Your task to perform on an android device: Open Youtube and go to "Your channel" Image 0: 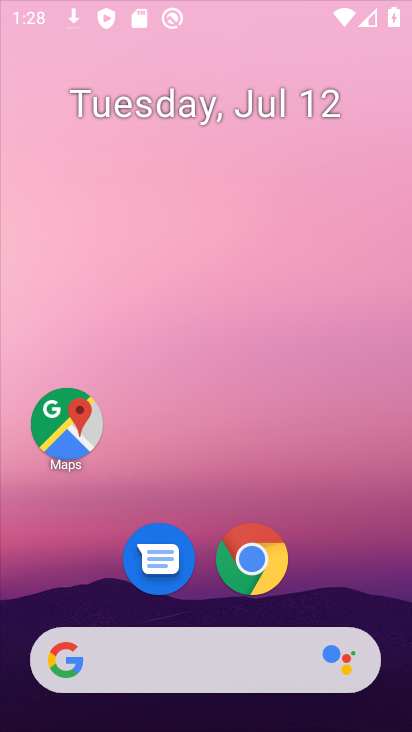
Step 0: press home button
Your task to perform on an android device: Open Youtube and go to "Your channel" Image 1: 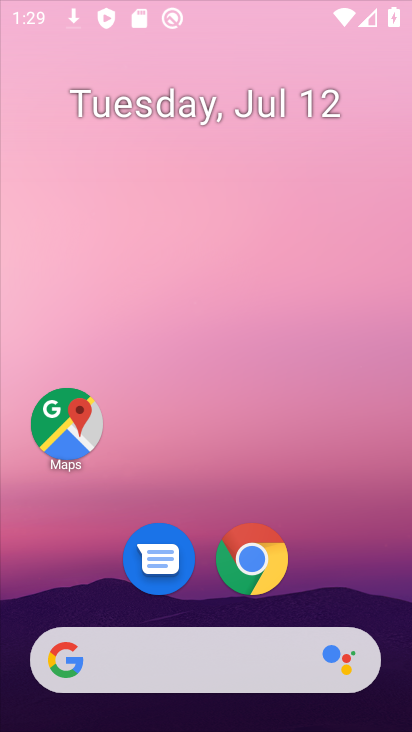
Step 1: drag from (363, 546) to (382, 111)
Your task to perform on an android device: Open Youtube and go to "Your channel" Image 2: 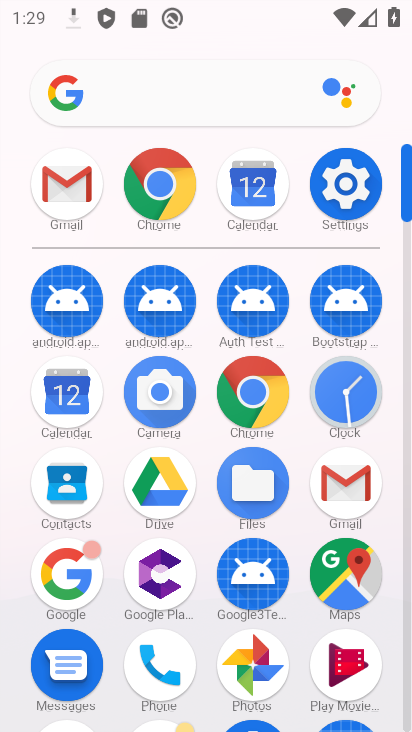
Step 2: drag from (389, 626) to (389, 315)
Your task to perform on an android device: Open Youtube and go to "Your channel" Image 3: 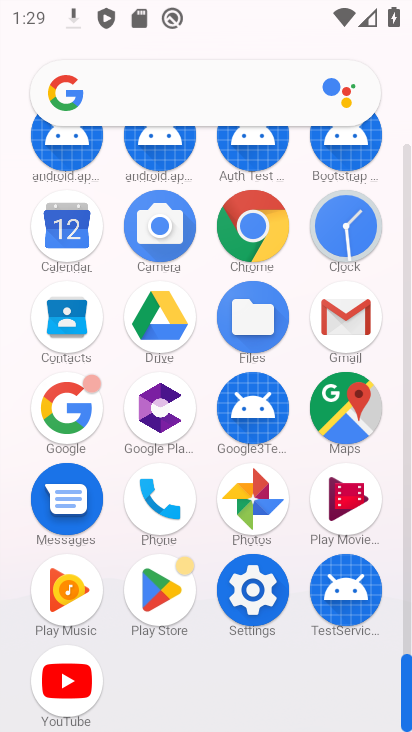
Step 3: click (57, 687)
Your task to perform on an android device: Open Youtube and go to "Your channel" Image 4: 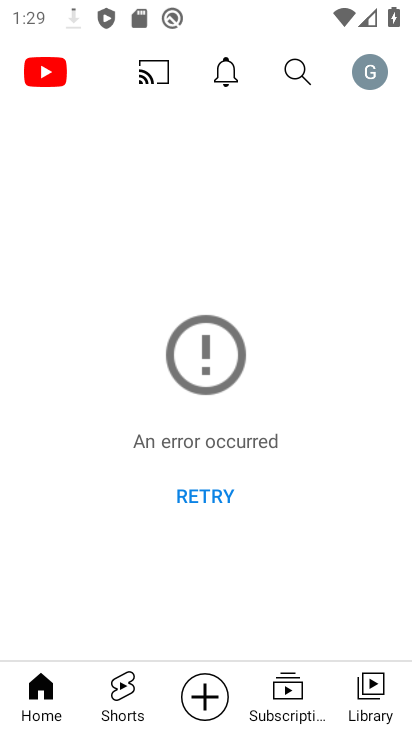
Step 4: click (377, 73)
Your task to perform on an android device: Open Youtube and go to "Your channel" Image 5: 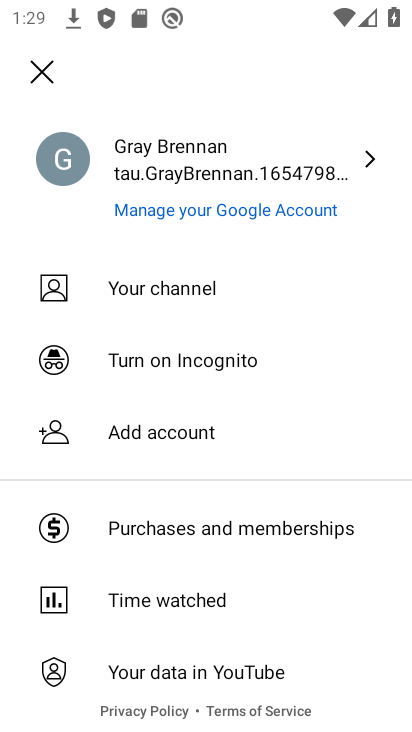
Step 5: click (195, 297)
Your task to perform on an android device: Open Youtube and go to "Your channel" Image 6: 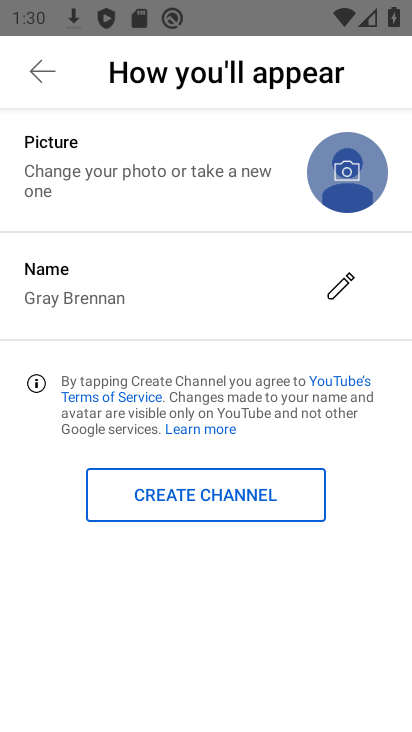
Step 6: task complete